Your task to perform on an android device: What's the news in theFalkland Islands? Image 0: 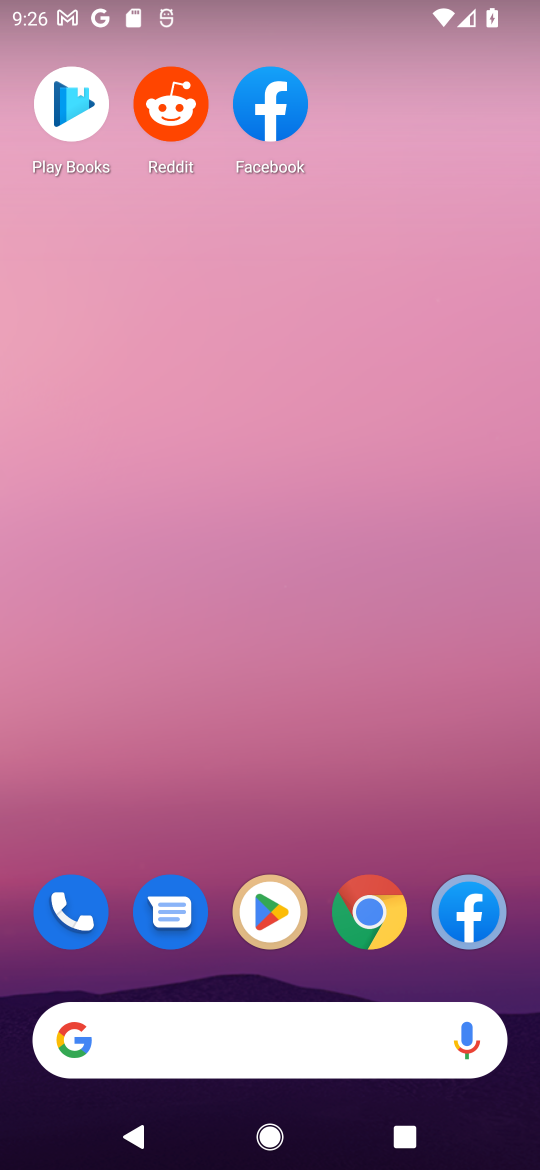
Step 0: click (368, 911)
Your task to perform on an android device: What's the news in theFalkland Islands? Image 1: 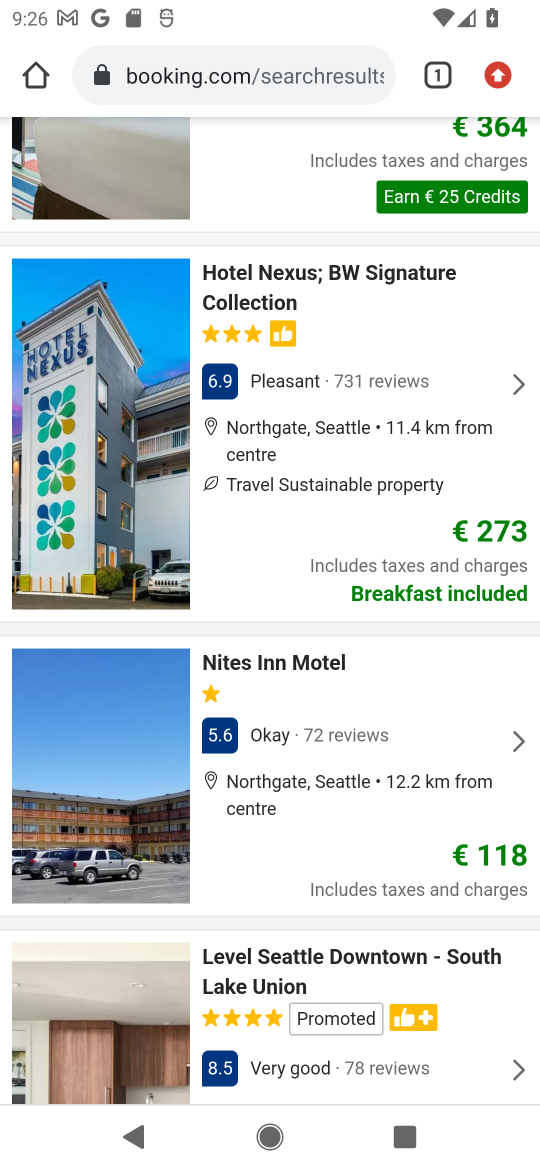
Step 1: click (246, 56)
Your task to perform on an android device: What's the news in theFalkland Islands? Image 2: 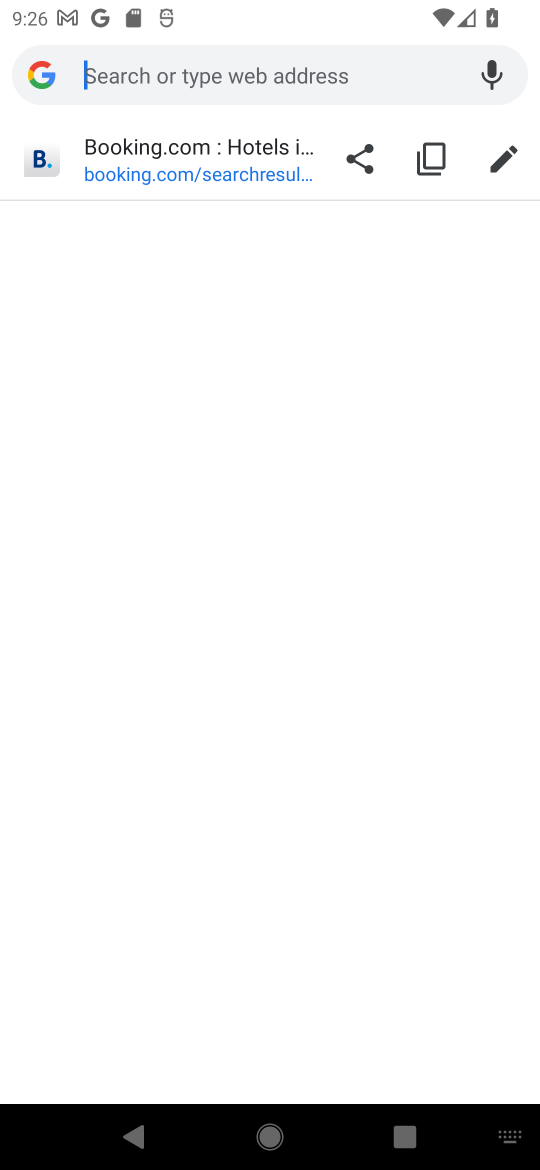
Step 2: type "news in the falkland islands"
Your task to perform on an android device: What's the news in theFalkland Islands? Image 3: 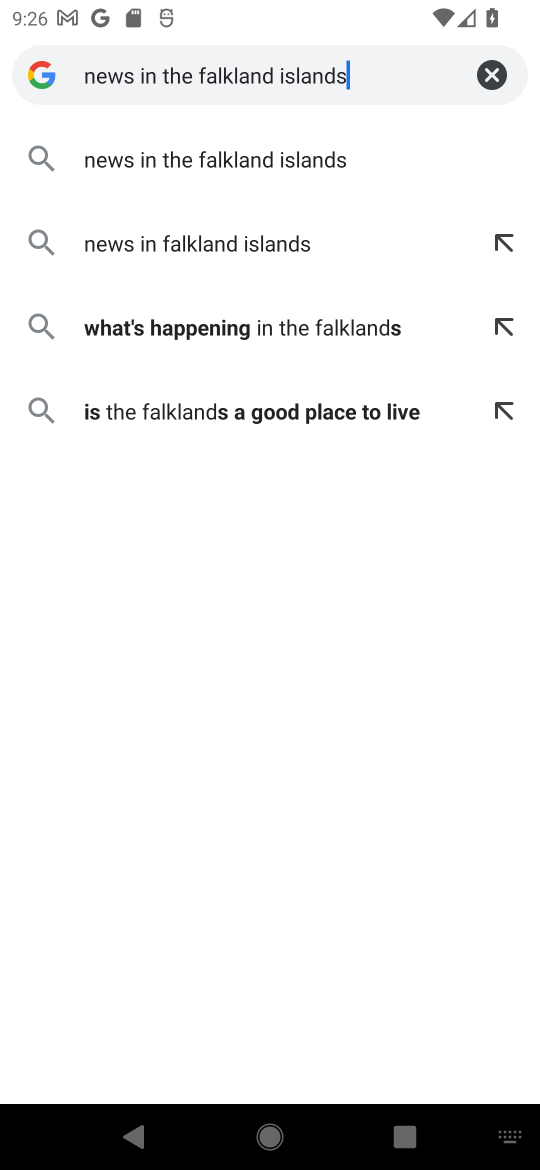
Step 3: click (164, 170)
Your task to perform on an android device: What's the news in theFalkland Islands? Image 4: 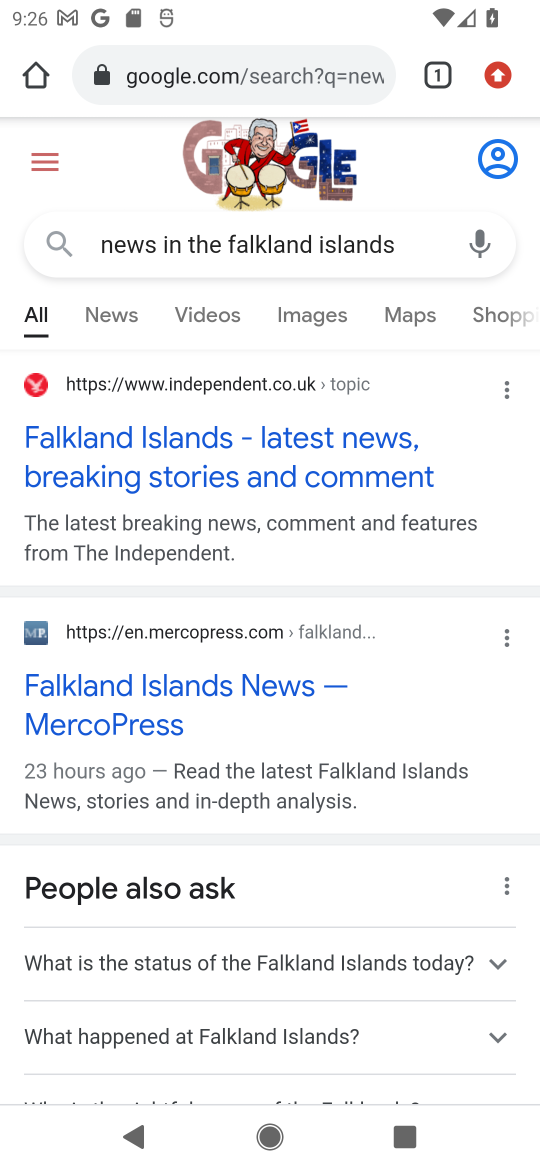
Step 4: click (156, 442)
Your task to perform on an android device: What's the news in theFalkland Islands? Image 5: 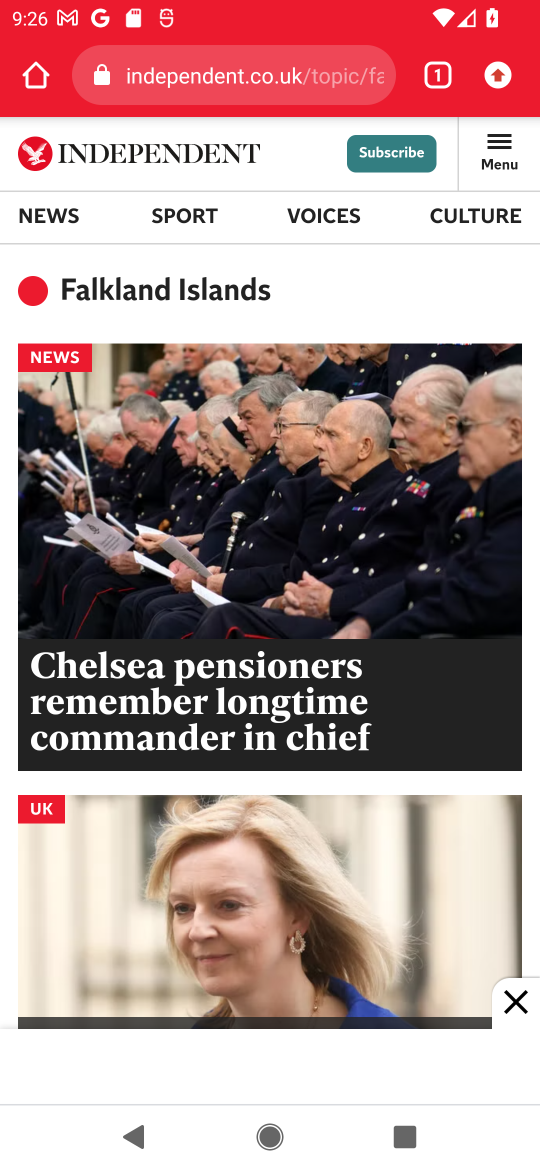
Step 5: click (153, 698)
Your task to perform on an android device: What's the news in theFalkland Islands? Image 6: 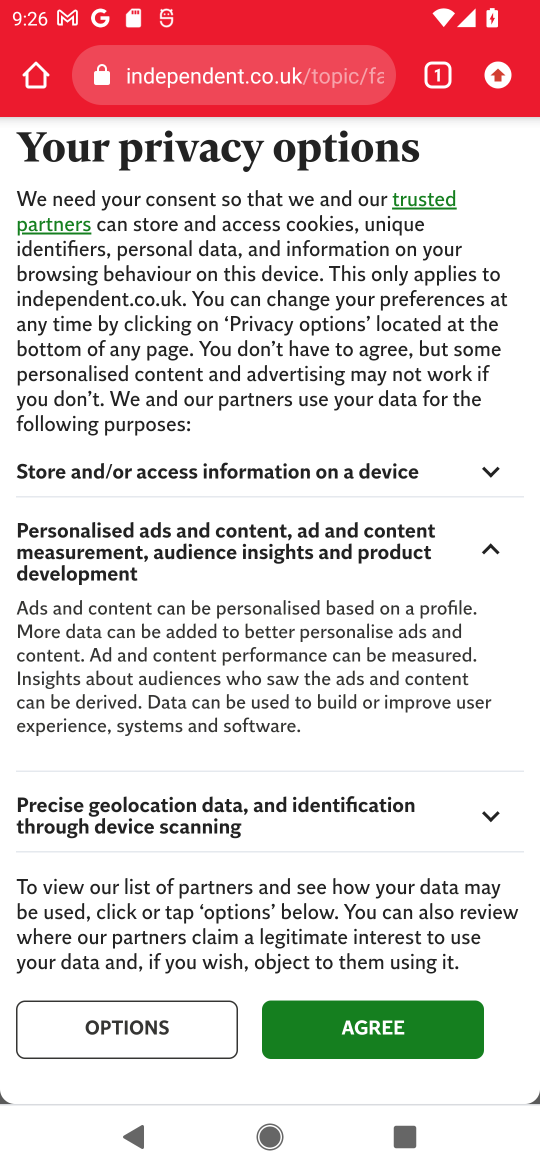
Step 6: click (375, 1028)
Your task to perform on an android device: What's the news in theFalkland Islands? Image 7: 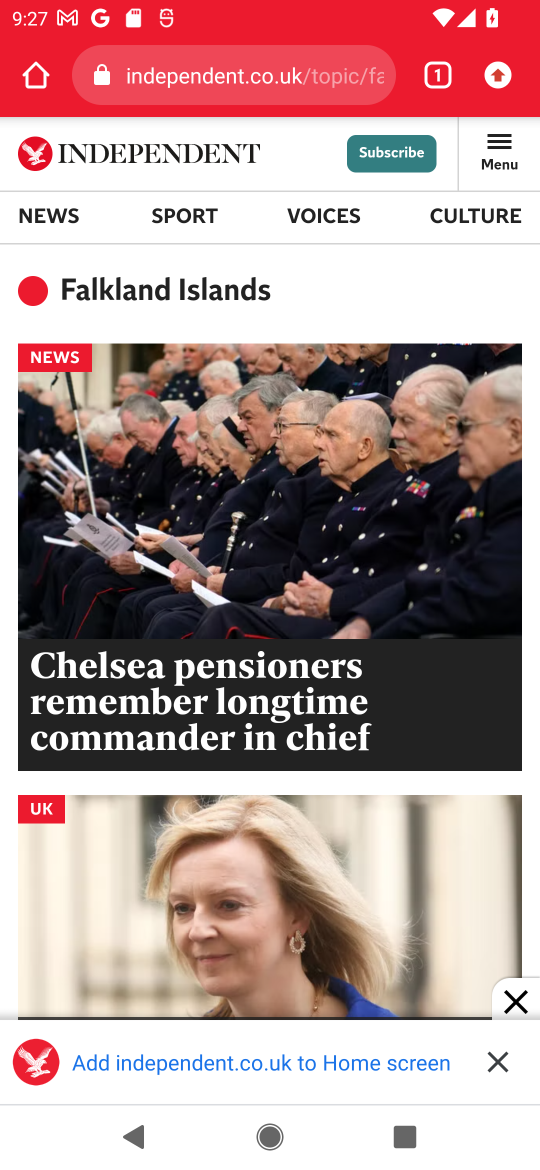
Step 7: drag from (295, 705) to (295, 46)
Your task to perform on an android device: What's the news in theFalkland Islands? Image 8: 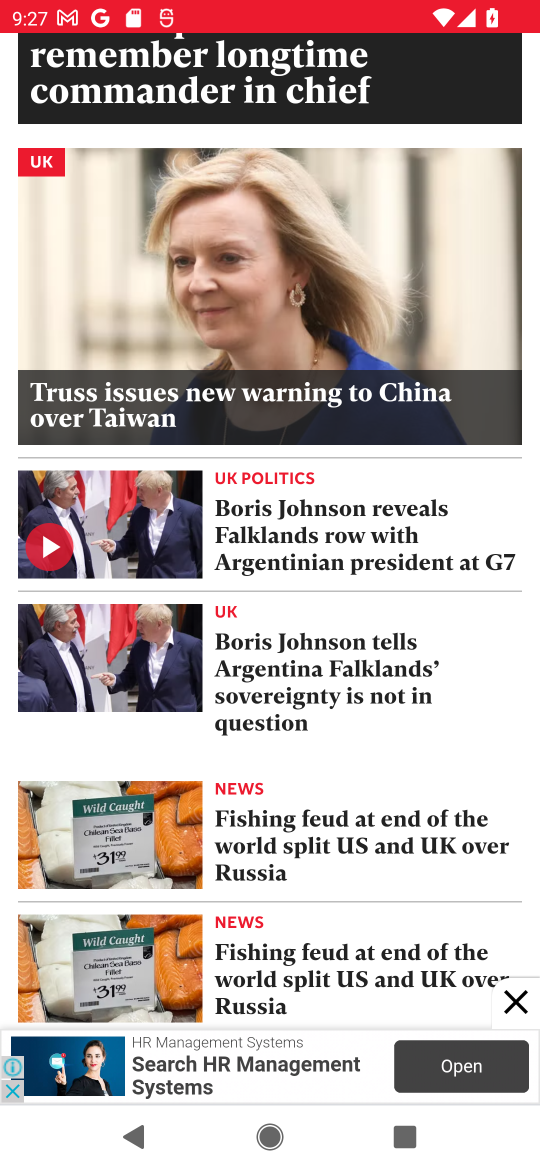
Step 8: click (108, 396)
Your task to perform on an android device: What's the news in theFalkland Islands? Image 9: 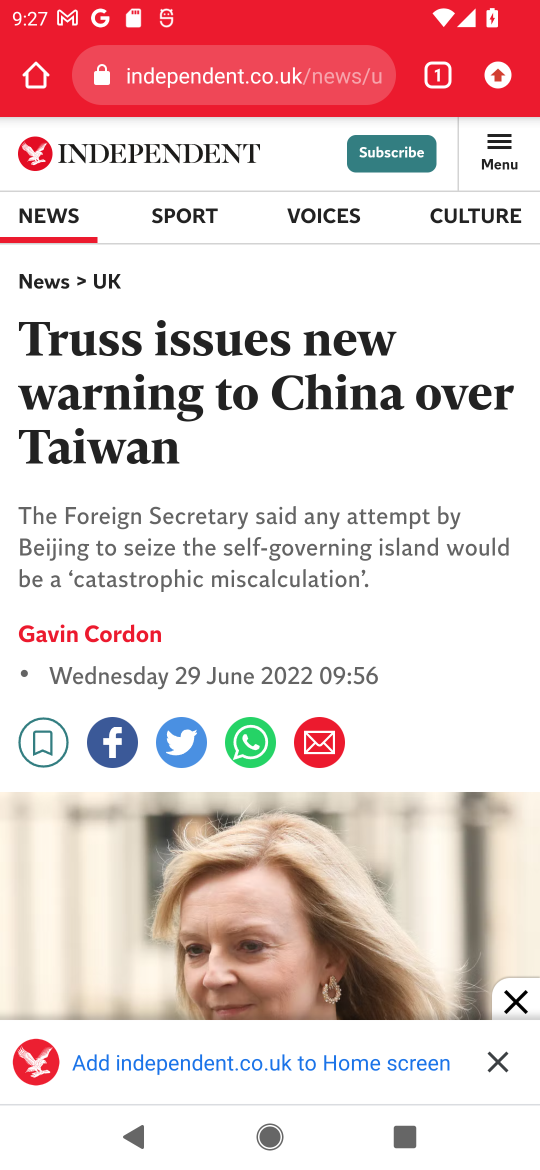
Step 9: task complete